Your task to perform on an android device: Go to accessibility settings Image 0: 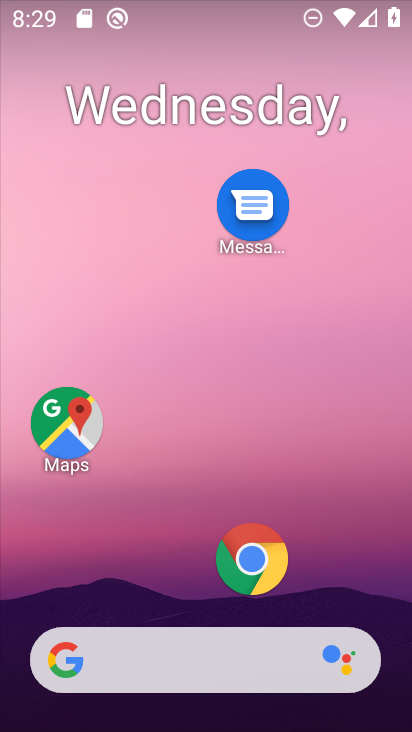
Step 0: drag from (152, 642) to (171, 112)
Your task to perform on an android device: Go to accessibility settings Image 1: 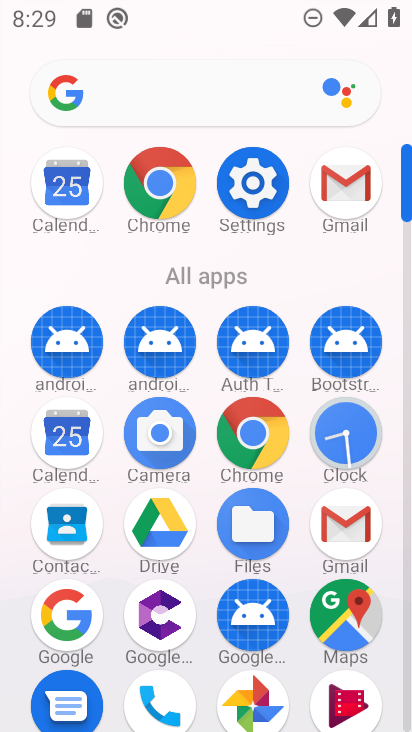
Step 1: click (251, 188)
Your task to perform on an android device: Go to accessibility settings Image 2: 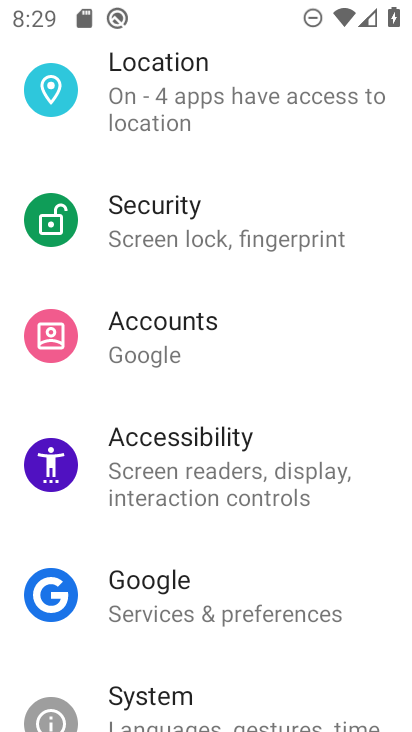
Step 2: click (190, 476)
Your task to perform on an android device: Go to accessibility settings Image 3: 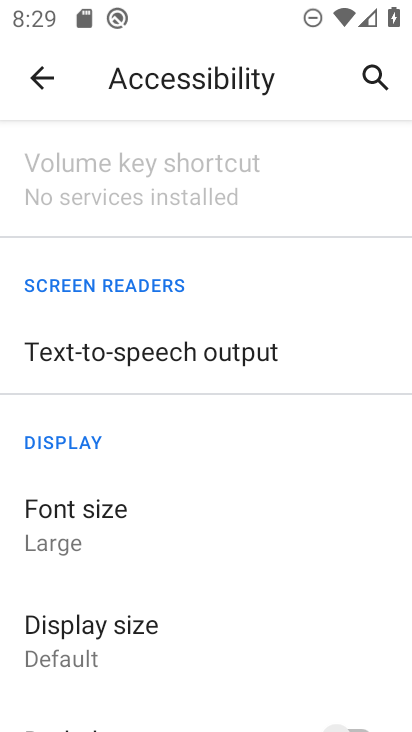
Step 3: task complete